Your task to perform on an android device: set the timer Image 0: 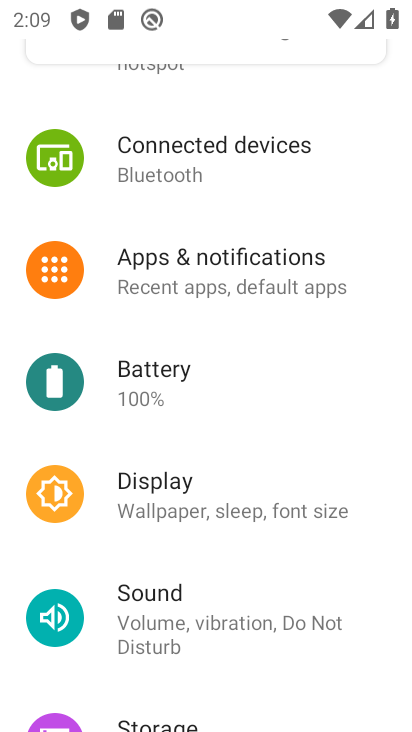
Step 0: press home button
Your task to perform on an android device: set the timer Image 1: 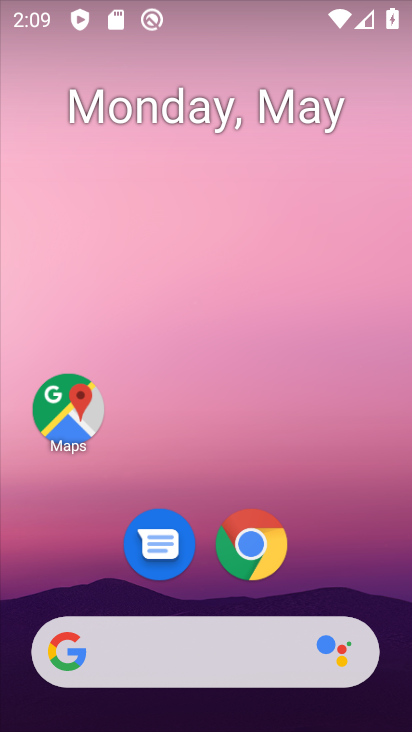
Step 1: drag from (196, 561) to (221, 268)
Your task to perform on an android device: set the timer Image 2: 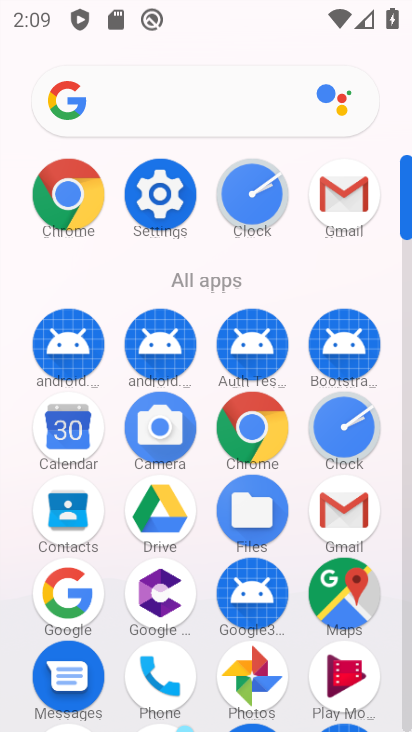
Step 2: click (233, 200)
Your task to perform on an android device: set the timer Image 3: 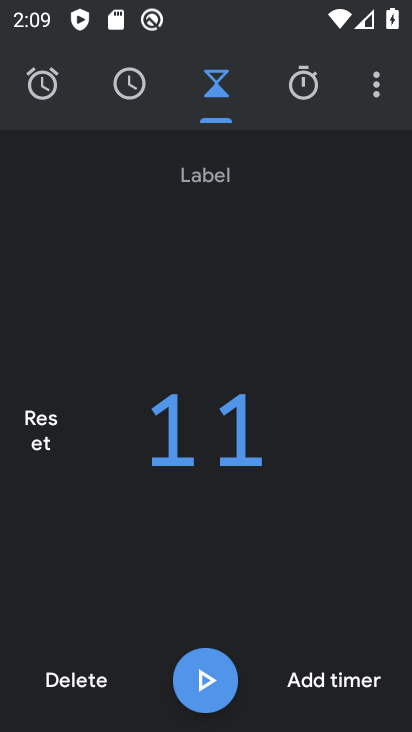
Step 3: click (213, 665)
Your task to perform on an android device: set the timer Image 4: 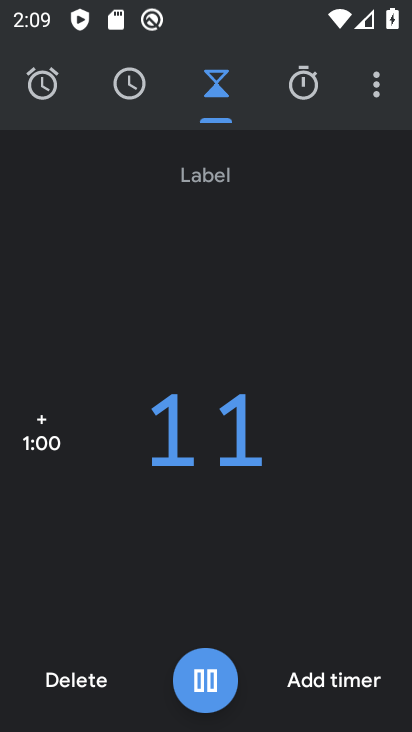
Step 4: task complete